Your task to perform on an android device: Open calendar and show me the third week of next month Image 0: 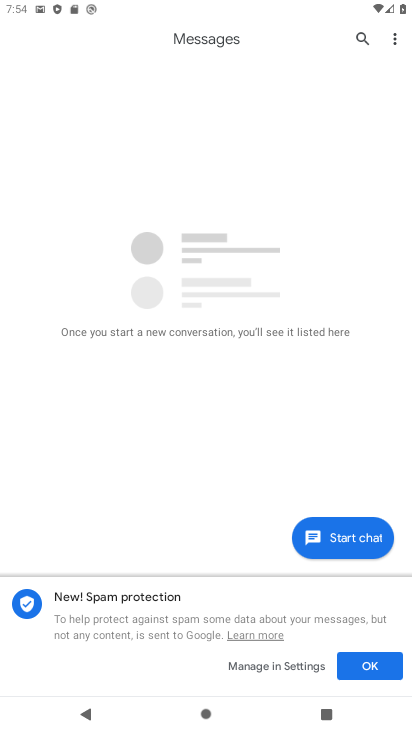
Step 0: press home button
Your task to perform on an android device: Open calendar and show me the third week of next month Image 1: 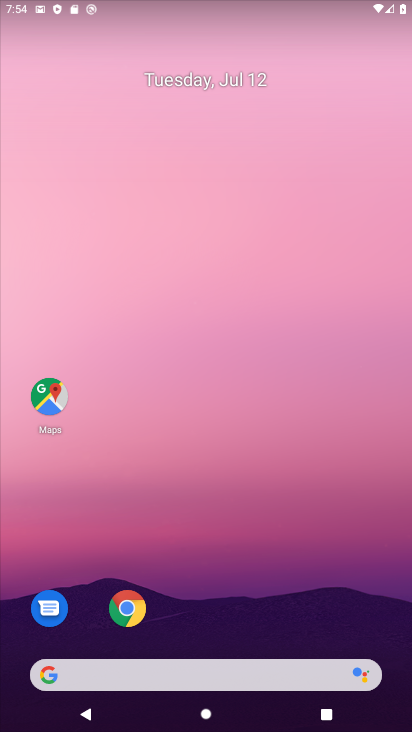
Step 1: drag from (186, 640) to (262, 140)
Your task to perform on an android device: Open calendar and show me the third week of next month Image 2: 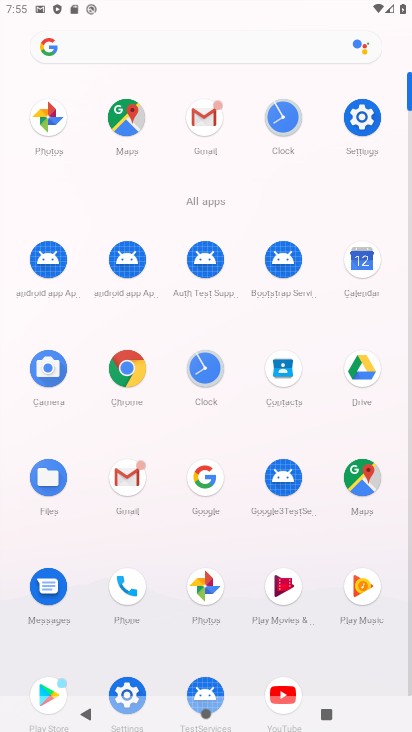
Step 2: click (372, 254)
Your task to perform on an android device: Open calendar and show me the third week of next month Image 3: 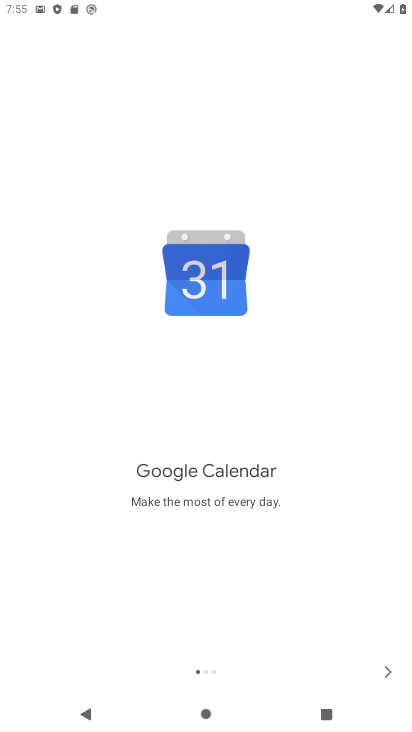
Step 3: click (387, 666)
Your task to perform on an android device: Open calendar and show me the third week of next month Image 4: 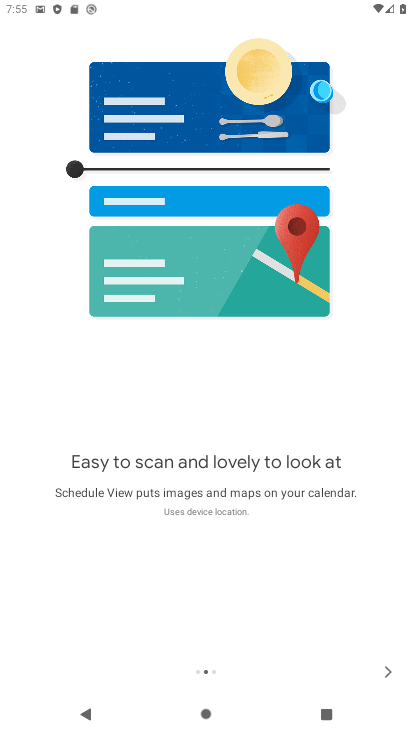
Step 4: click (387, 666)
Your task to perform on an android device: Open calendar and show me the third week of next month Image 5: 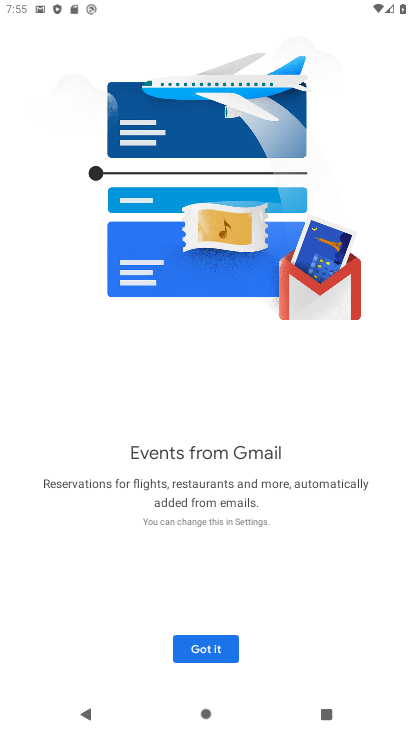
Step 5: click (192, 651)
Your task to perform on an android device: Open calendar and show me the third week of next month Image 6: 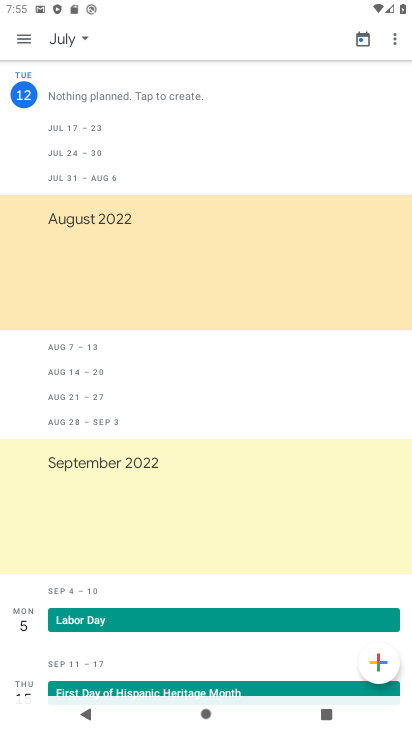
Step 6: click (21, 41)
Your task to perform on an android device: Open calendar and show me the third week of next month Image 7: 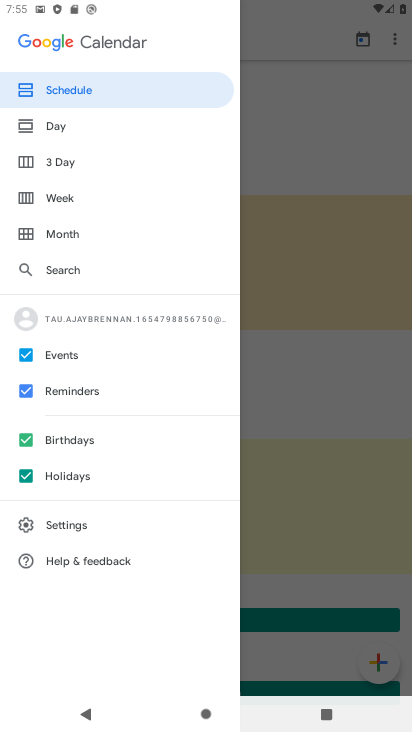
Step 7: click (297, 125)
Your task to perform on an android device: Open calendar and show me the third week of next month Image 8: 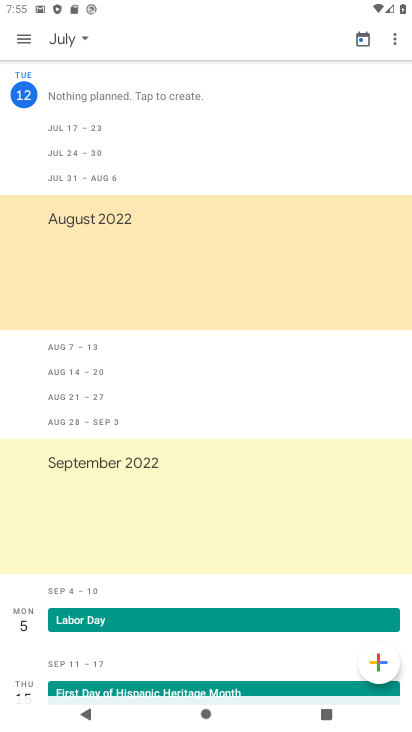
Step 8: click (86, 41)
Your task to perform on an android device: Open calendar and show me the third week of next month Image 9: 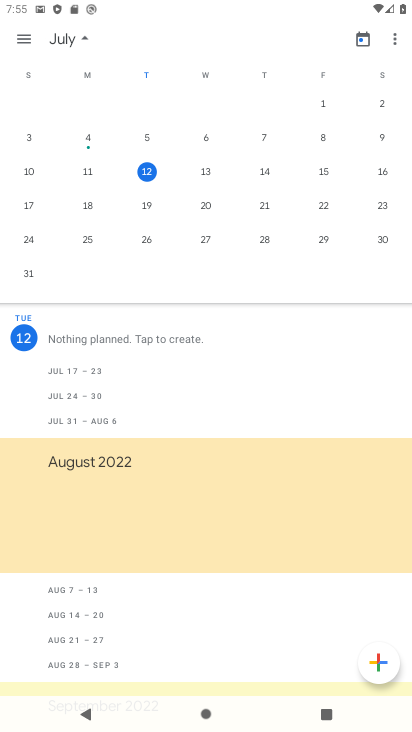
Step 9: drag from (394, 186) to (87, 173)
Your task to perform on an android device: Open calendar and show me the third week of next month Image 10: 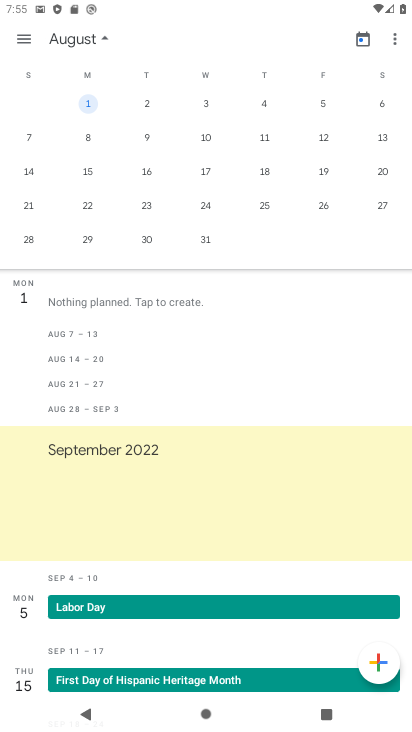
Step 10: click (23, 171)
Your task to perform on an android device: Open calendar and show me the third week of next month Image 11: 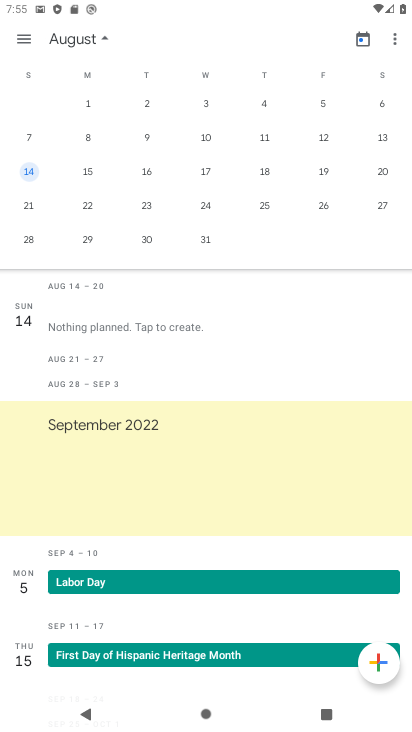
Step 11: click (89, 168)
Your task to perform on an android device: Open calendar and show me the third week of next month Image 12: 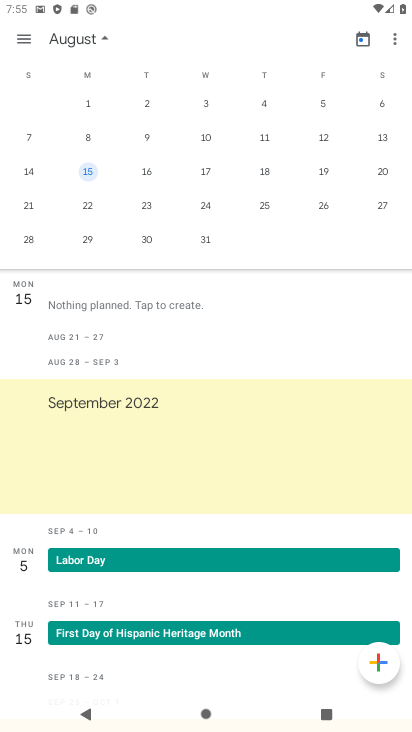
Step 12: click (155, 172)
Your task to perform on an android device: Open calendar and show me the third week of next month Image 13: 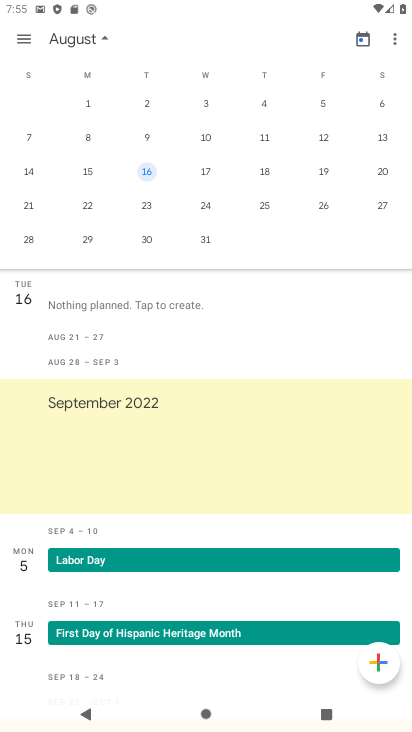
Step 13: click (202, 165)
Your task to perform on an android device: Open calendar and show me the third week of next month Image 14: 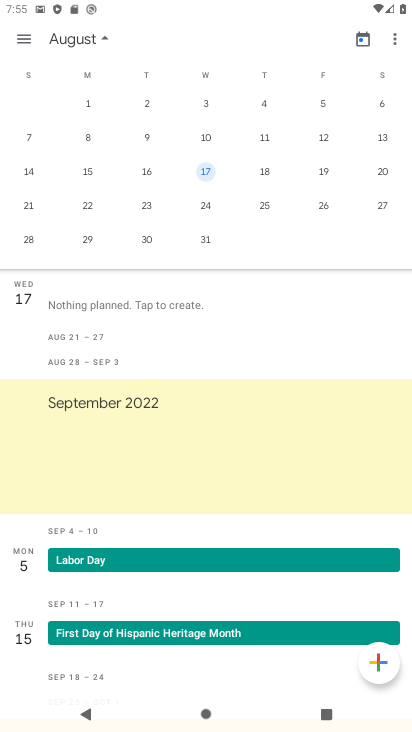
Step 14: click (259, 168)
Your task to perform on an android device: Open calendar and show me the third week of next month Image 15: 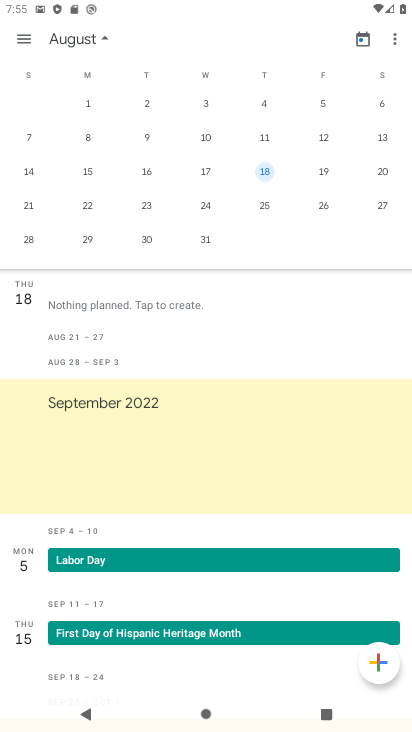
Step 15: click (318, 176)
Your task to perform on an android device: Open calendar and show me the third week of next month Image 16: 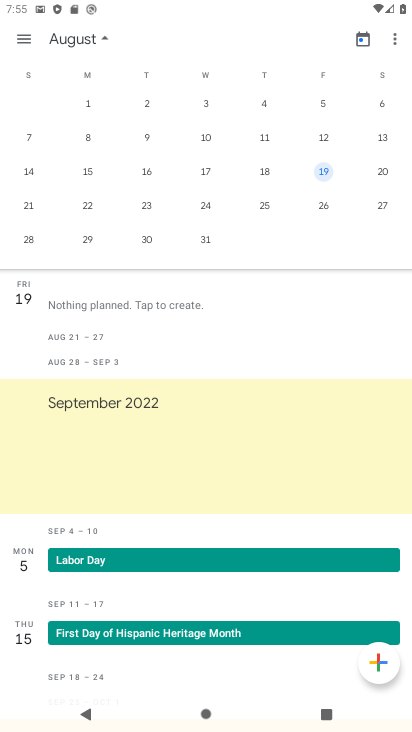
Step 16: click (385, 169)
Your task to perform on an android device: Open calendar and show me the third week of next month Image 17: 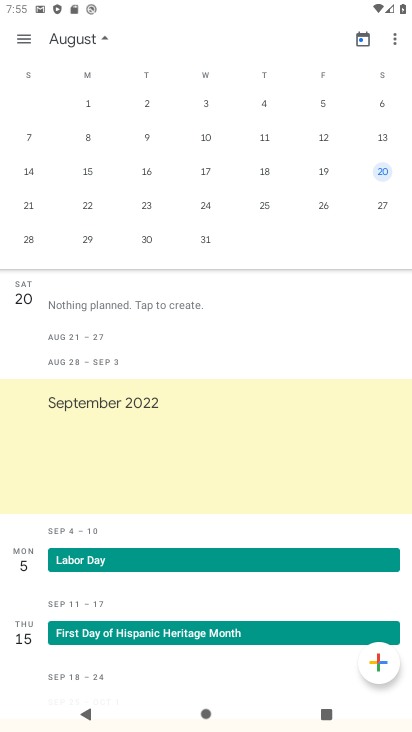
Step 17: task complete